Your task to perform on an android device: Open location settings Image 0: 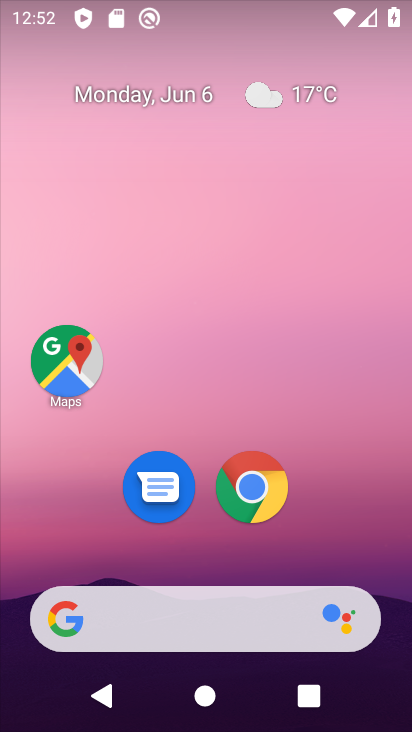
Step 0: drag from (117, 567) to (257, 18)
Your task to perform on an android device: Open location settings Image 1: 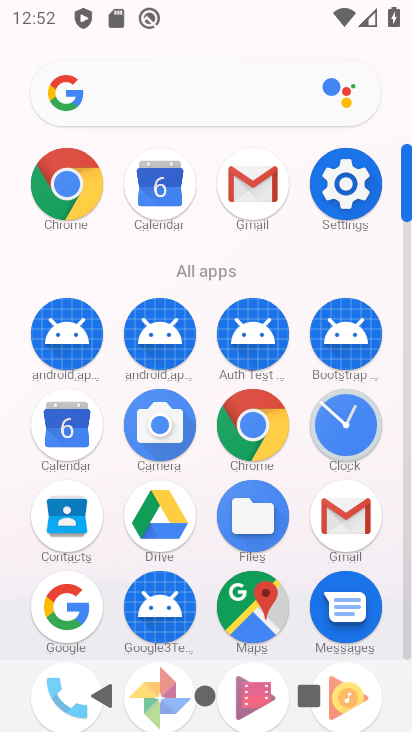
Step 1: click (405, 171)
Your task to perform on an android device: Open location settings Image 2: 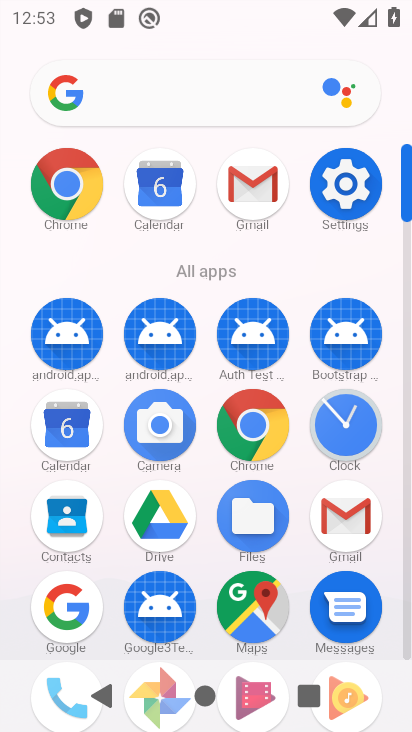
Step 2: click (337, 194)
Your task to perform on an android device: Open location settings Image 3: 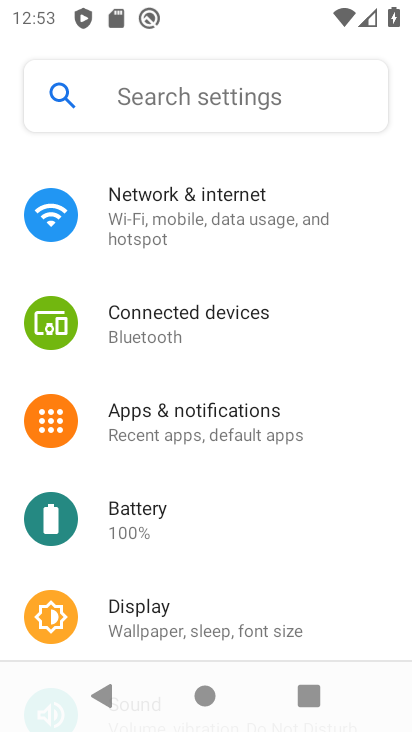
Step 3: drag from (206, 645) to (339, 199)
Your task to perform on an android device: Open location settings Image 4: 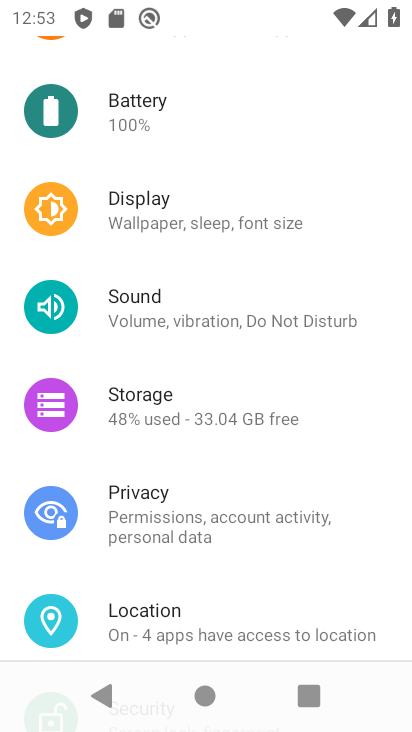
Step 4: drag from (194, 570) to (309, 211)
Your task to perform on an android device: Open location settings Image 5: 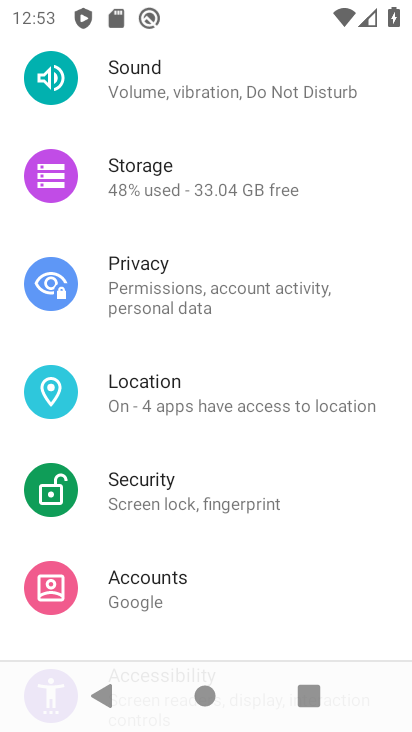
Step 5: click (168, 416)
Your task to perform on an android device: Open location settings Image 6: 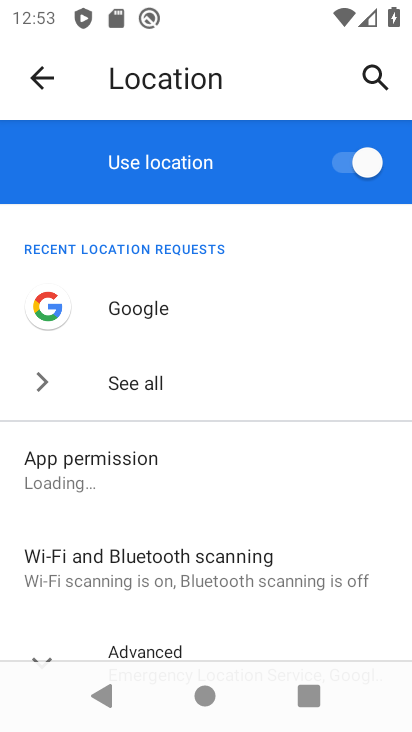
Step 6: task complete